Your task to perform on an android device: Open Yahoo.com Image 0: 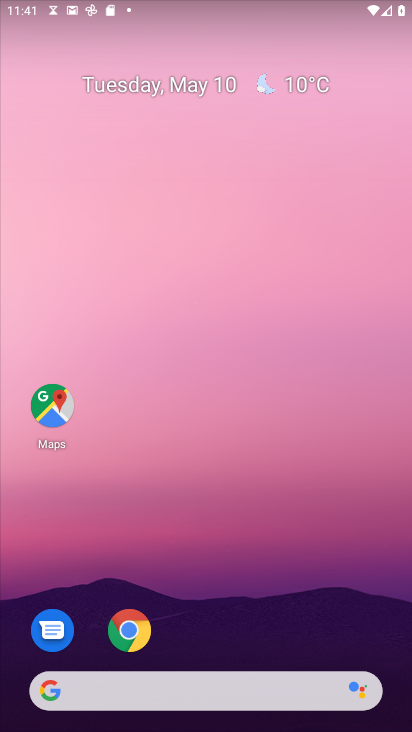
Step 0: click (138, 644)
Your task to perform on an android device: Open Yahoo.com Image 1: 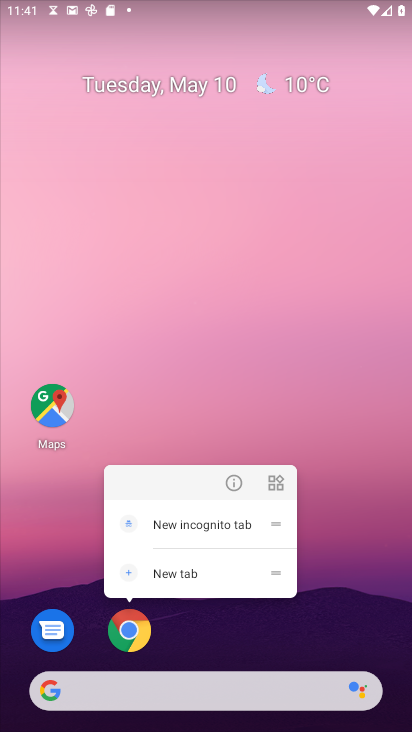
Step 1: click (145, 616)
Your task to perform on an android device: Open Yahoo.com Image 2: 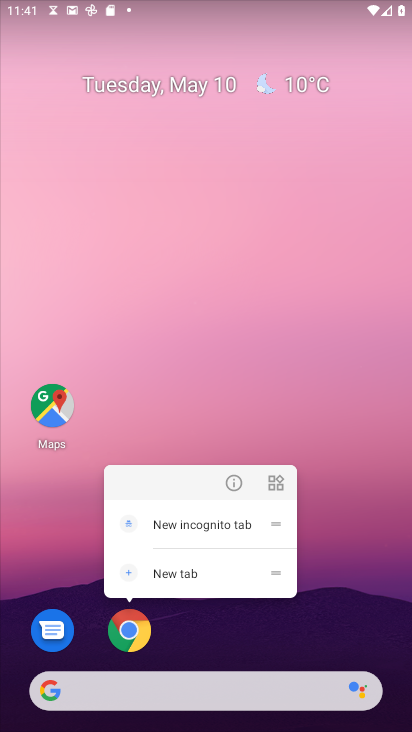
Step 2: click (132, 624)
Your task to perform on an android device: Open Yahoo.com Image 3: 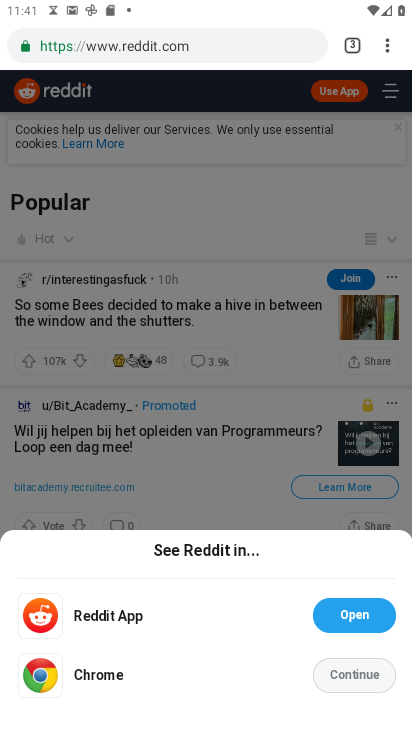
Step 3: click (347, 686)
Your task to perform on an android device: Open Yahoo.com Image 4: 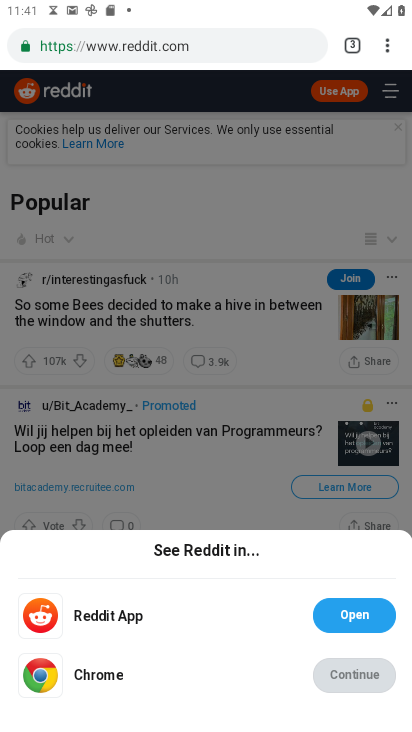
Step 4: click (352, 675)
Your task to perform on an android device: Open Yahoo.com Image 5: 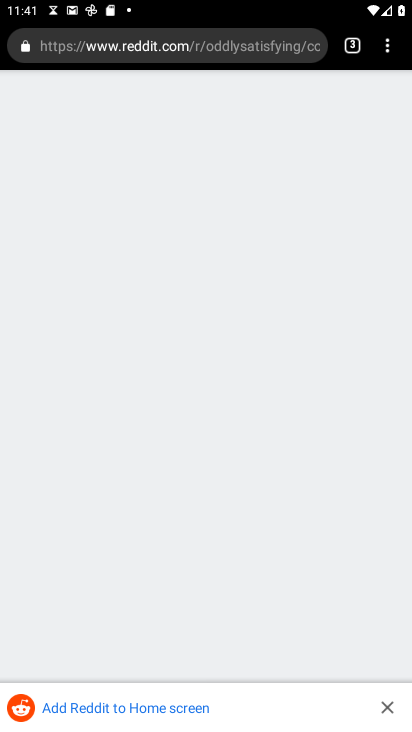
Step 5: click (192, 39)
Your task to perform on an android device: Open Yahoo.com Image 6: 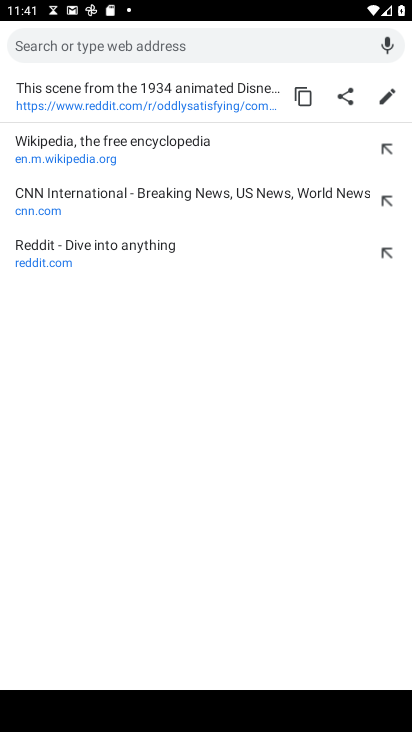
Step 6: click (198, 36)
Your task to perform on an android device: Open Yahoo.com Image 7: 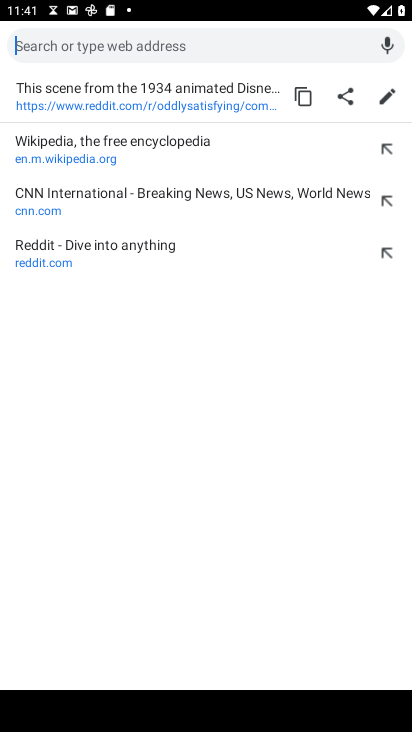
Step 7: click (198, 36)
Your task to perform on an android device: Open Yahoo.com Image 8: 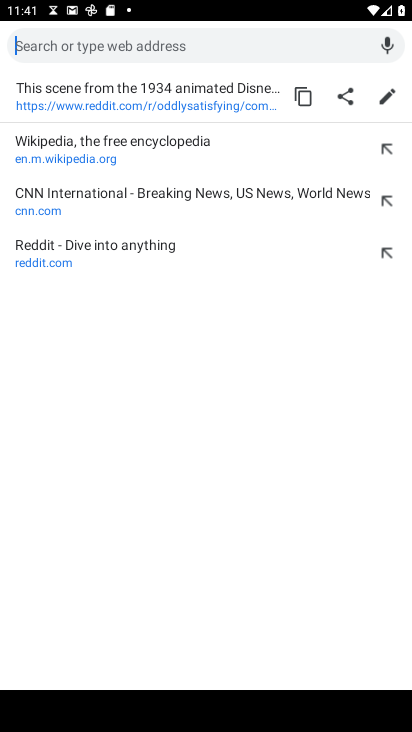
Step 8: type "Yahoo.com"
Your task to perform on an android device: Open Yahoo.com Image 9: 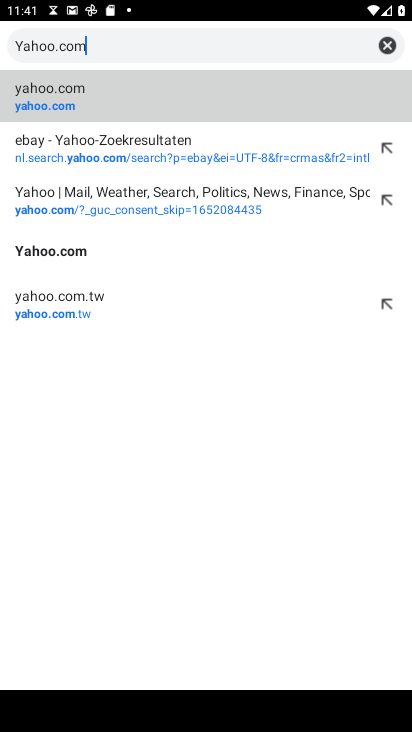
Step 9: click (31, 89)
Your task to perform on an android device: Open Yahoo.com Image 10: 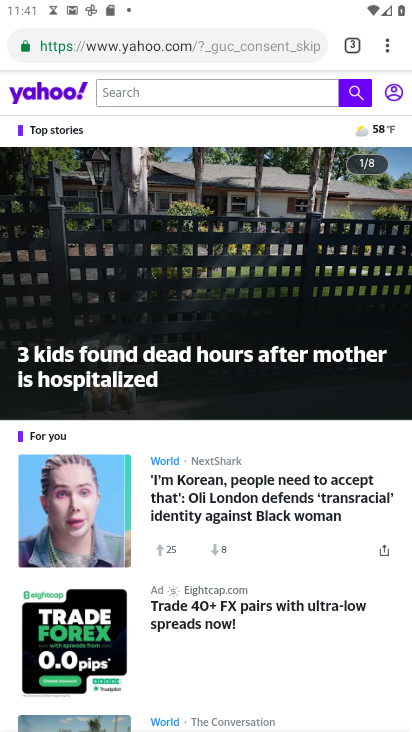
Step 10: task complete